Your task to perform on an android device: Go to Yahoo.com Image 0: 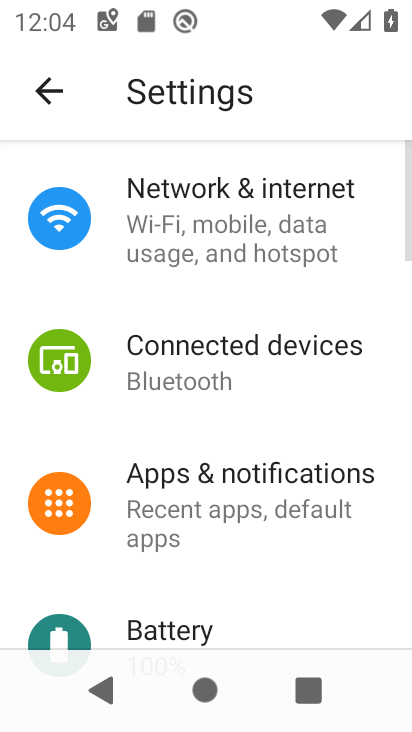
Step 0: press home button
Your task to perform on an android device: Go to Yahoo.com Image 1: 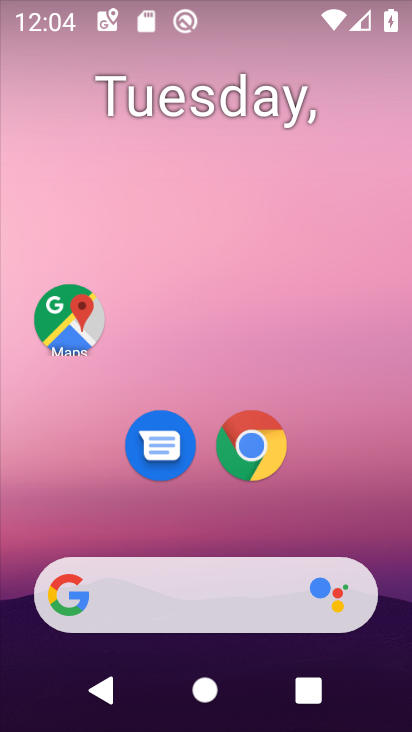
Step 1: click (245, 447)
Your task to perform on an android device: Go to Yahoo.com Image 2: 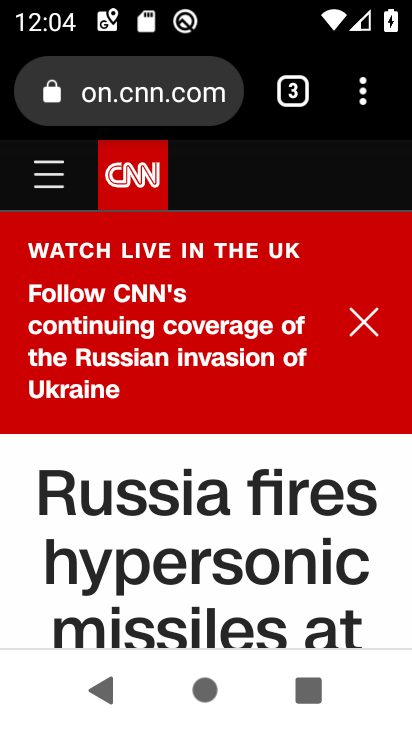
Step 2: click (362, 91)
Your task to perform on an android device: Go to Yahoo.com Image 3: 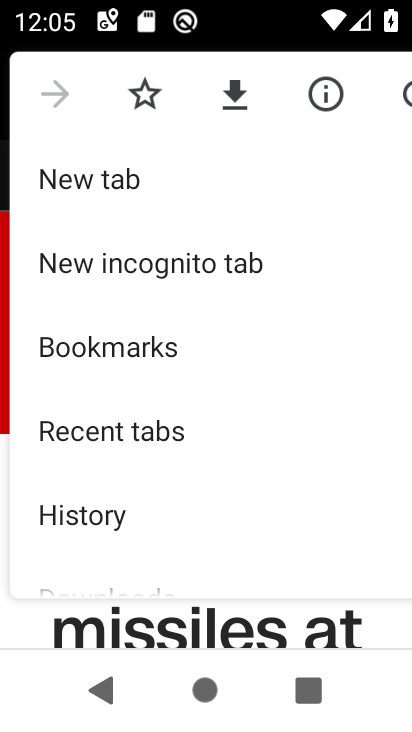
Step 3: click (93, 180)
Your task to perform on an android device: Go to Yahoo.com Image 4: 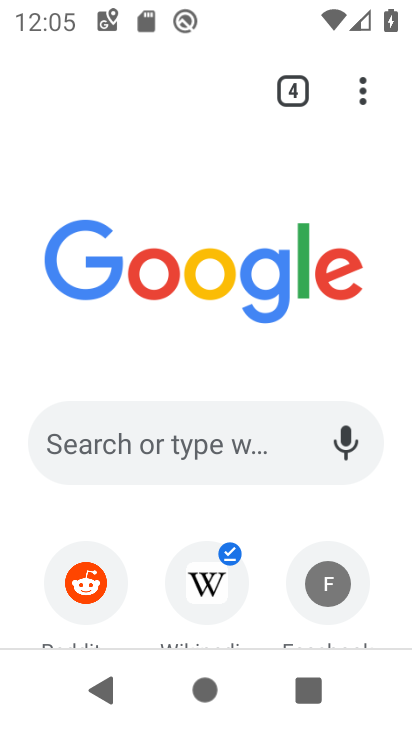
Step 4: drag from (269, 510) to (192, 130)
Your task to perform on an android device: Go to Yahoo.com Image 5: 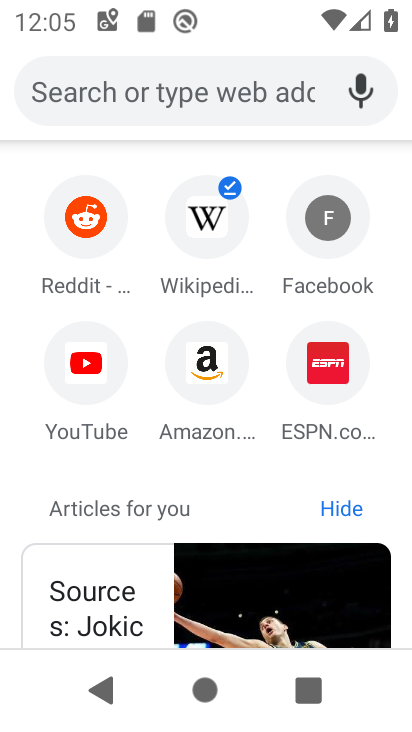
Step 5: click (196, 94)
Your task to perform on an android device: Go to Yahoo.com Image 6: 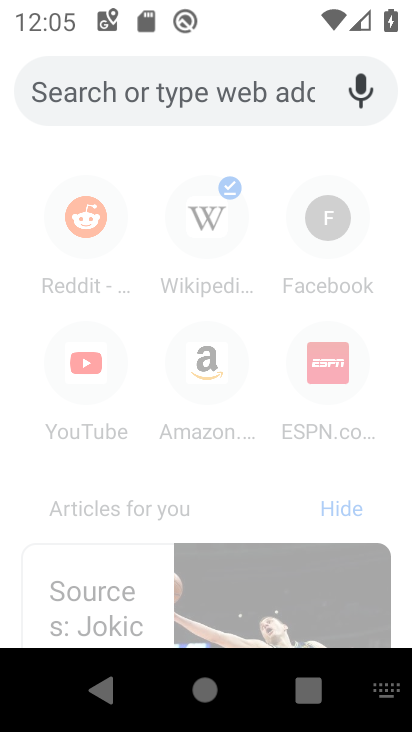
Step 6: type "yahoo.com"
Your task to perform on an android device: Go to Yahoo.com Image 7: 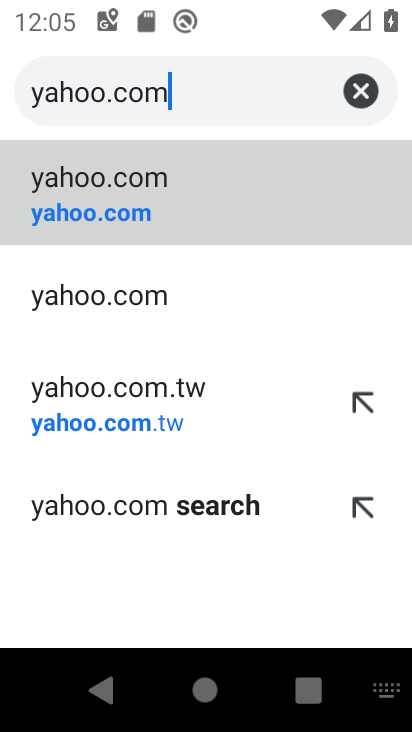
Step 7: click (139, 186)
Your task to perform on an android device: Go to Yahoo.com Image 8: 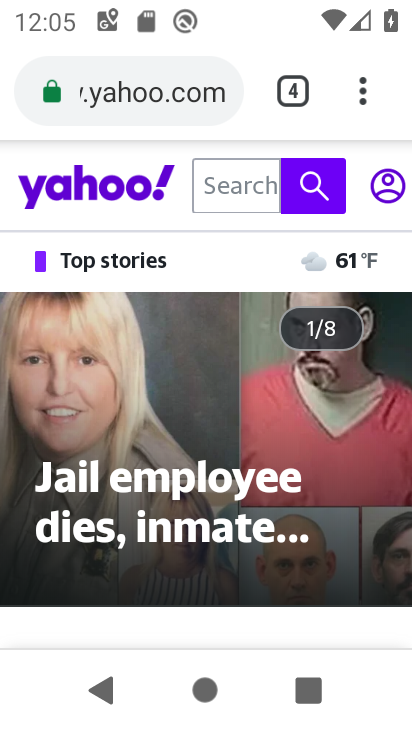
Step 8: task complete